Your task to perform on an android device: manage bookmarks in the chrome app Image 0: 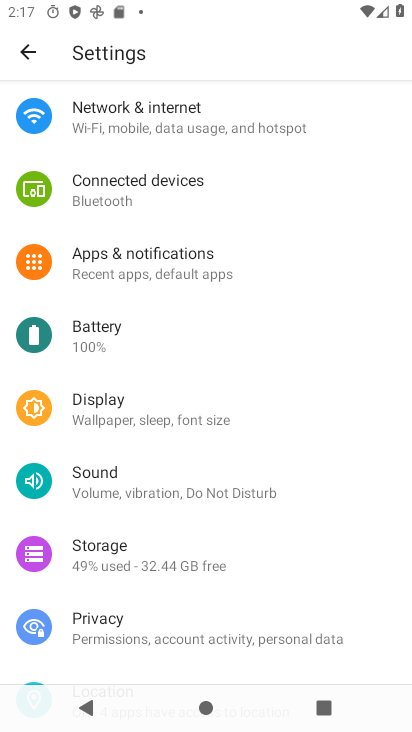
Step 0: press home button
Your task to perform on an android device: manage bookmarks in the chrome app Image 1: 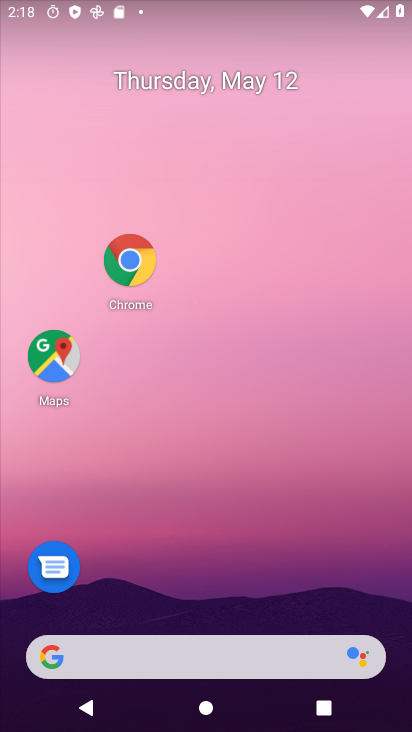
Step 1: click (135, 262)
Your task to perform on an android device: manage bookmarks in the chrome app Image 2: 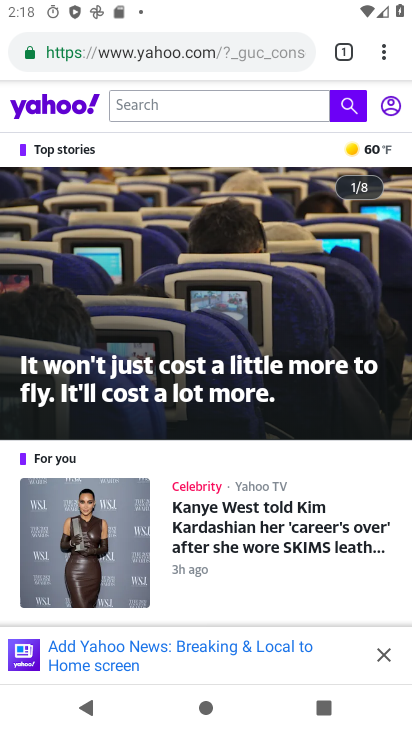
Step 2: click (385, 52)
Your task to perform on an android device: manage bookmarks in the chrome app Image 3: 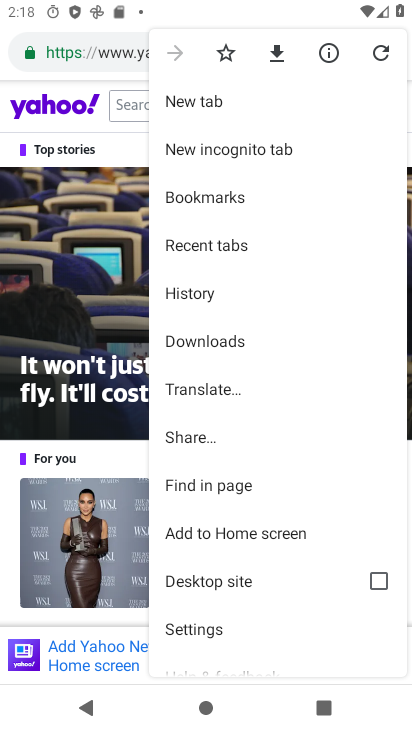
Step 3: click (209, 198)
Your task to perform on an android device: manage bookmarks in the chrome app Image 4: 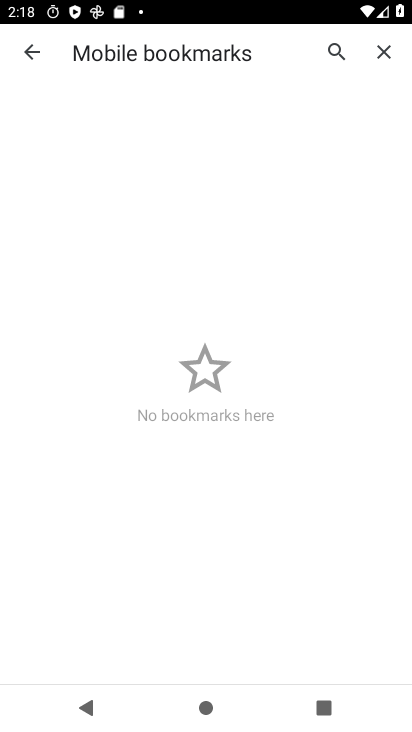
Step 4: task complete